Your task to perform on an android device: When is my next appointment? Image 0: 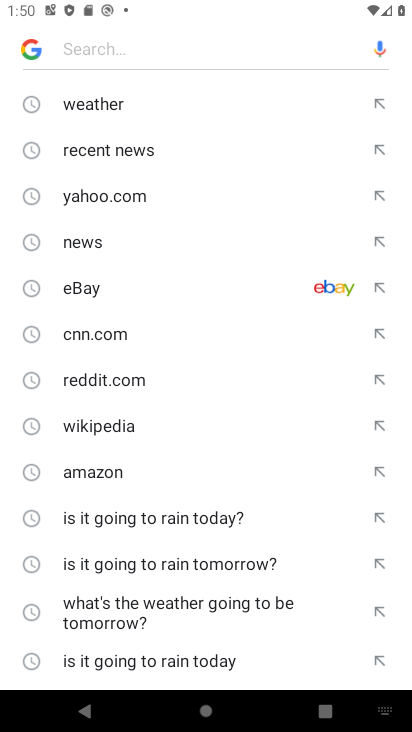
Step 0: press back button
Your task to perform on an android device: When is my next appointment? Image 1: 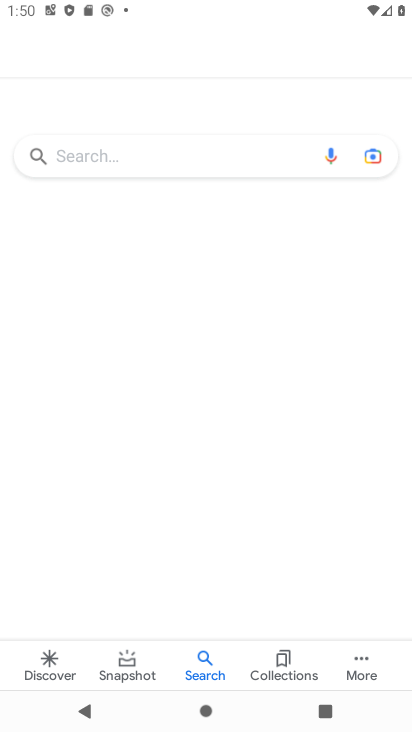
Step 1: press back button
Your task to perform on an android device: When is my next appointment? Image 2: 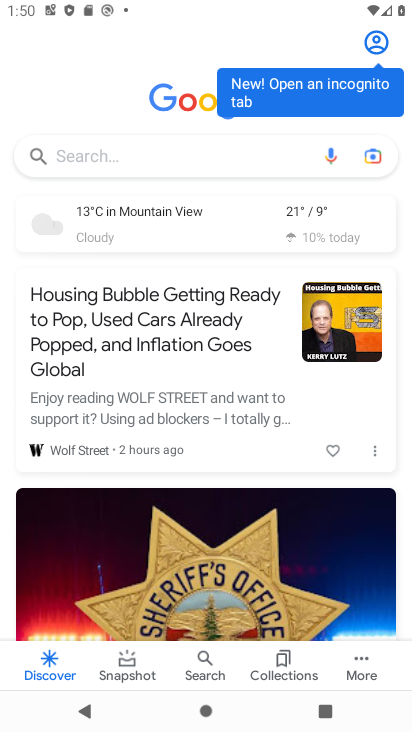
Step 2: press back button
Your task to perform on an android device: When is my next appointment? Image 3: 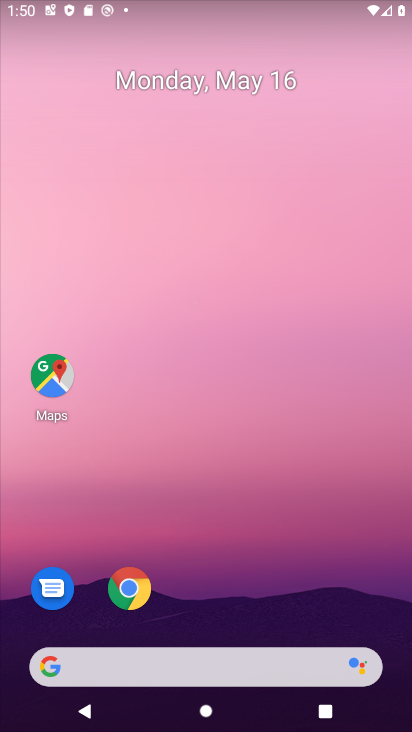
Step 3: drag from (250, 619) to (205, 110)
Your task to perform on an android device: When is my next appointment? Image 4: 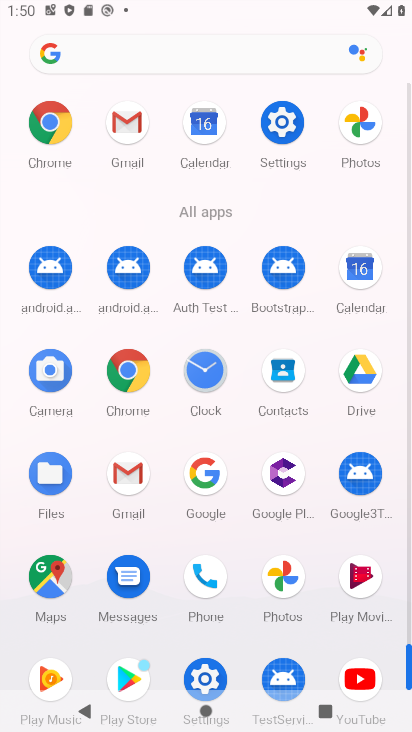
Step 4: click (363, 268)
Your task to perform on an android device: When is my next appointment? Image 5: 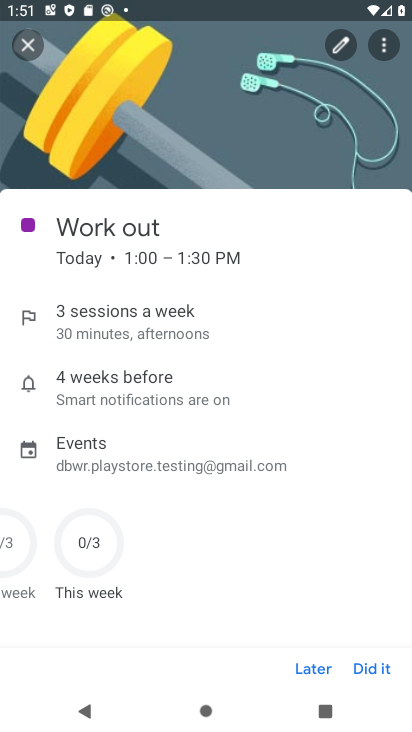
Step 5: click (34, 39)
Your task to perform on an android device: When is my next appointment? Image 6: 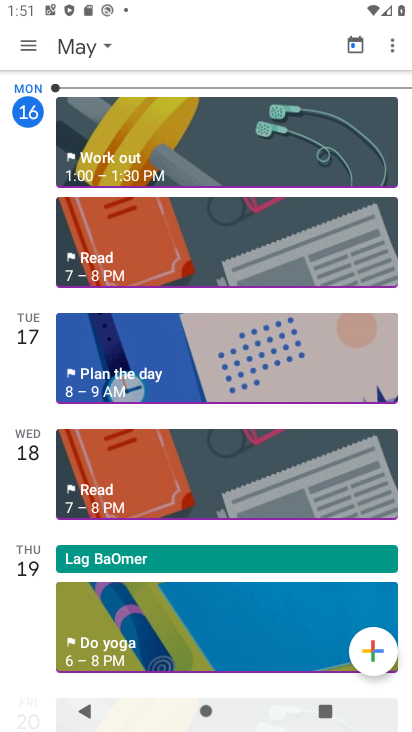
Step 6: click (94, 44)
Your task to perform on an android device: When is my next appointment? Image 7: 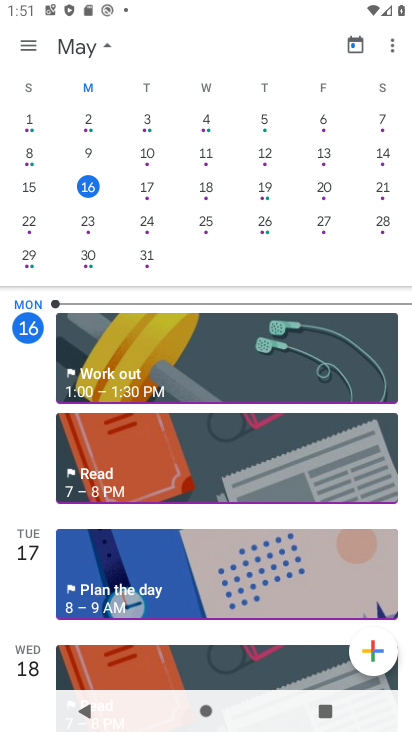
Step 7: click (143, 189)
Your task to perform on an android device: When is my next appointment? Image 8: 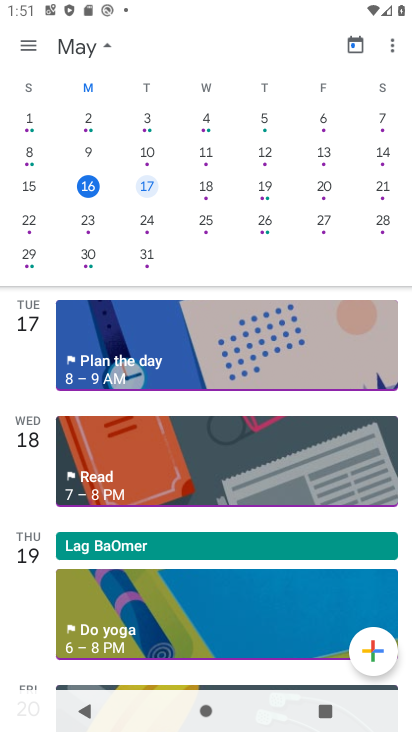
Step 8: click (29, 46)
Your task to perform on an android device: When is my next appointment? Image 9: 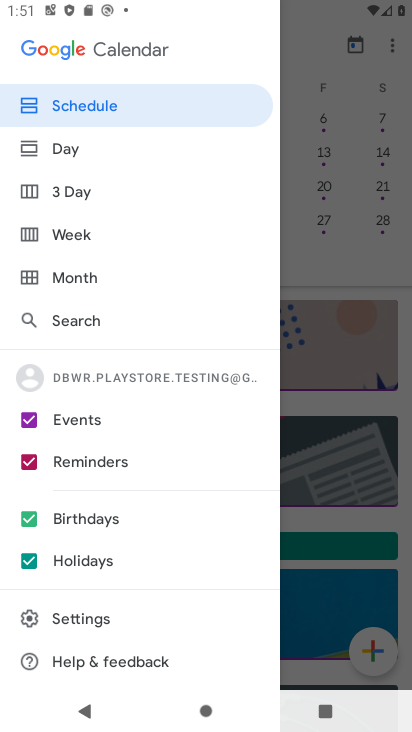
Step 9: click (62, 104)
Your task to perform on an android device: When is my next appointment? Image 10: 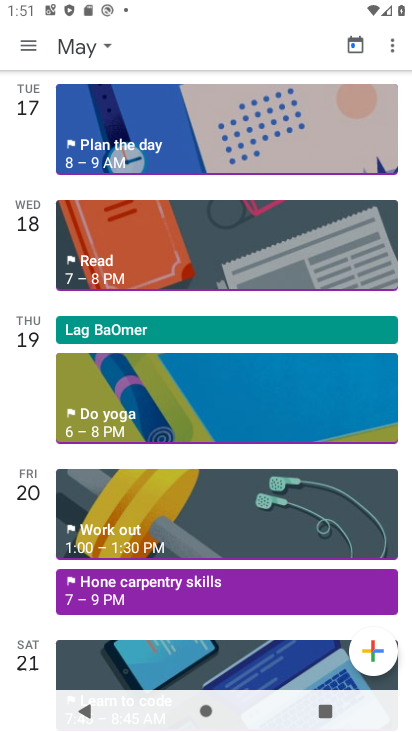
Step 10: click (161, 143)
Your task to perform on an android device: When is my next appointment? Image 11: 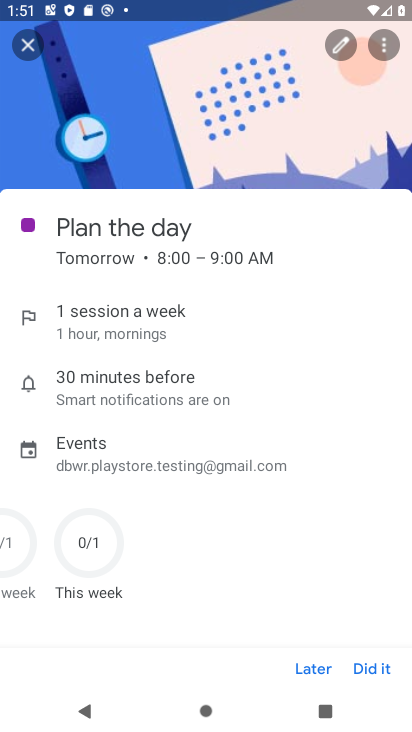
Step 11: task complete